Your task to perform on an android device: turn off javascript in the chrome app Image 0: 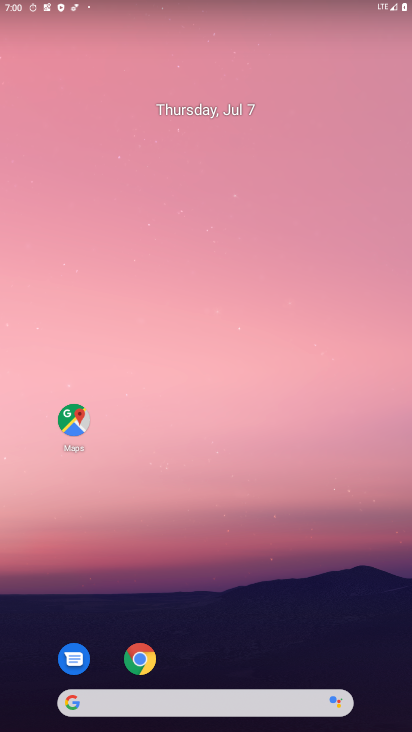
Step 0: drag from (394, 667) to (179, 22)
Your task to perform on an android device: turn off javascript in the chrome app Image 1: 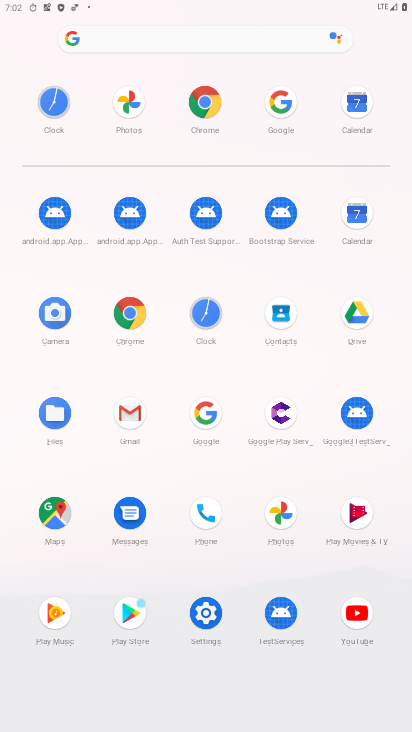
Step 1: click (137, 310)
Your task to perform on an android device: turn off javascript in the chrome app Image 2: 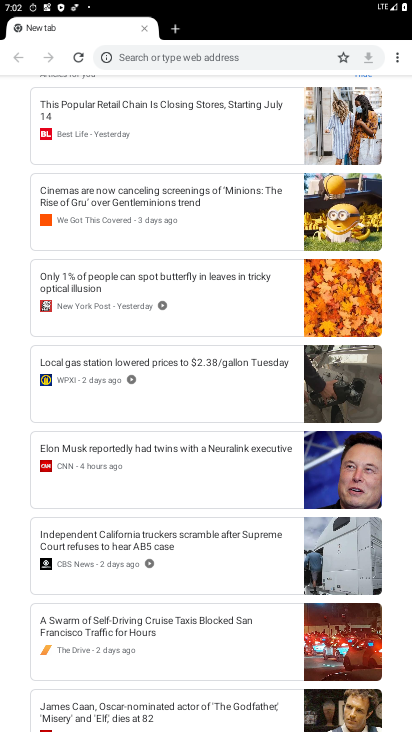
Step 2: click (397, 46)
Your task to perform on an android device: turn off javascript in the chrome app Image 3: 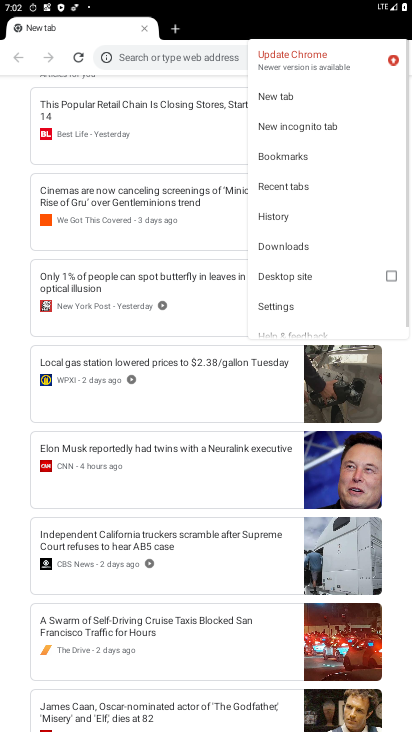
Step 3: click (286, 314)
Your task to perform on an android device: turn off javascript in the chrome app Image 4: 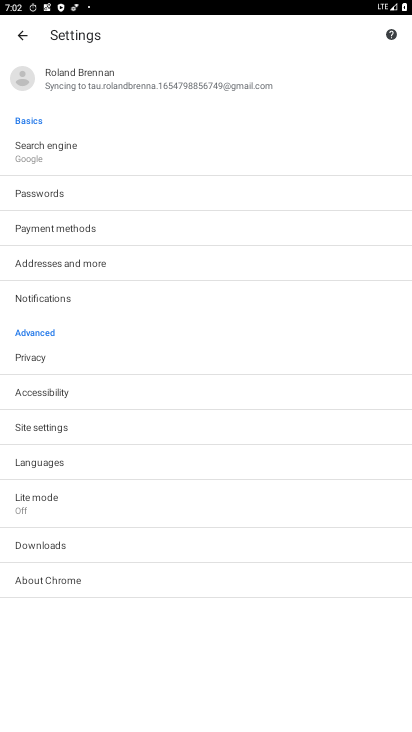
Step 4: click (67, 426)
Your task to perform on an android device: turn off javascript in the chrome app Image 5: 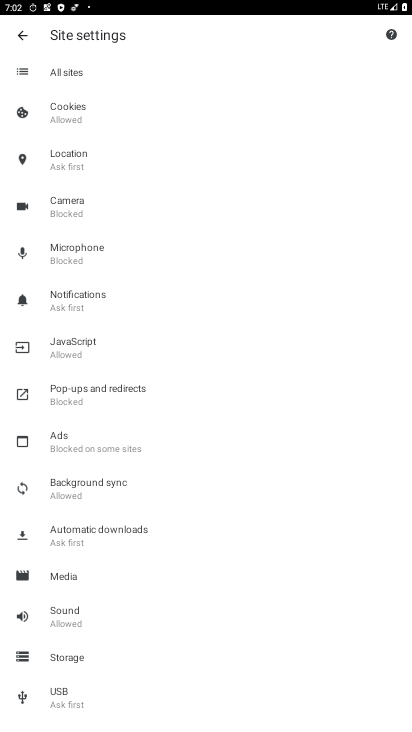
Step 5: click (85, 342)
Your task to perform on an android device: turn off javascript in the chrome app Image 6: 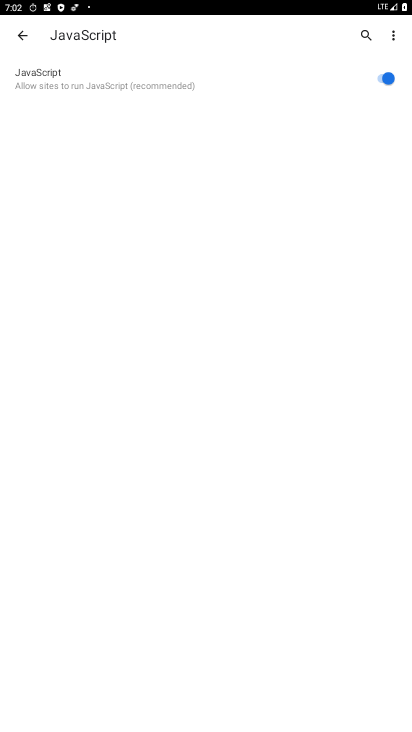
Step 6: click (385, 77)
Your task to perform on an android device: turn off javascript in the chrome app Image 7: 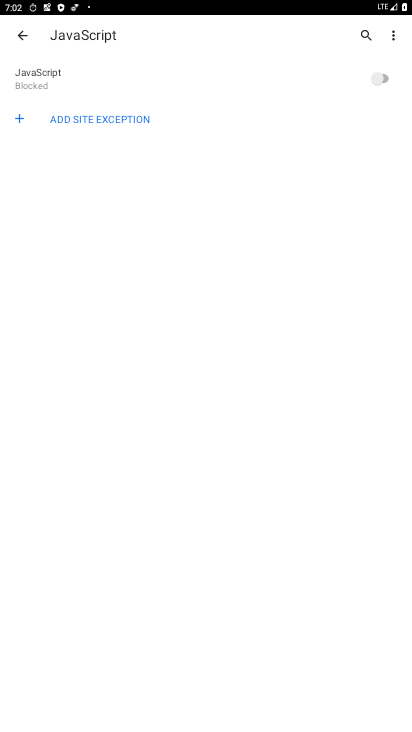
Step 7: task complete